Your task to perform on an android device: Open Youtube and go to the subscriptions tab Image 0: 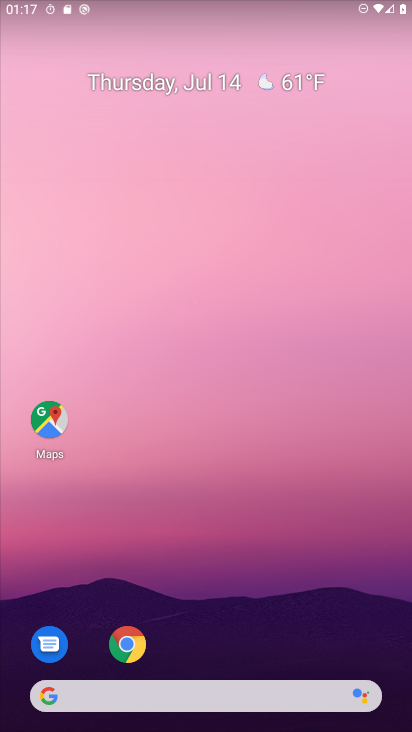
Step 0: drag from (327, 633) to (284, 198)
Your task to perform on an android device: Open Youtube and go to the subscriptions tab Image 1: 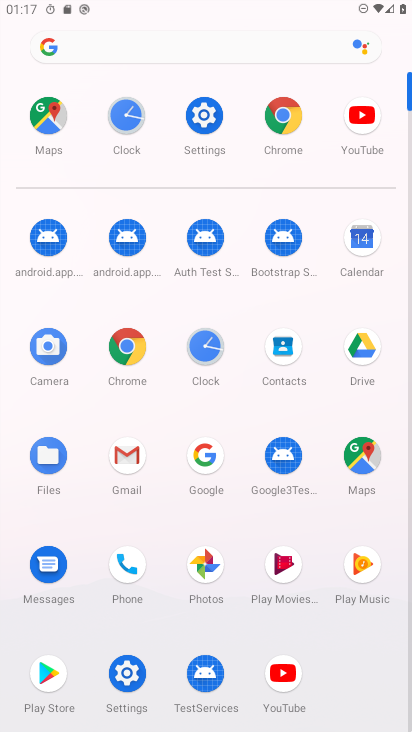
Step 1: click (365, 116)
Your task to perform on an android device: Open Youtube and go to the subscriptions tab Image 2: 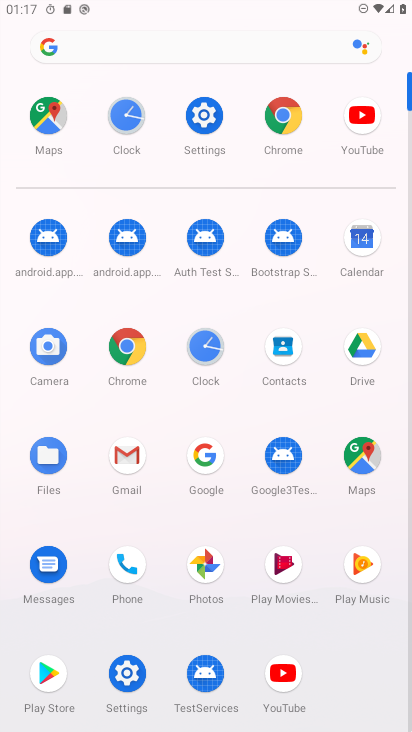
Step 2: click (360, 109)
Your task to perform on an android device: Open Youtube and go to the subscriptions tab Image 3: 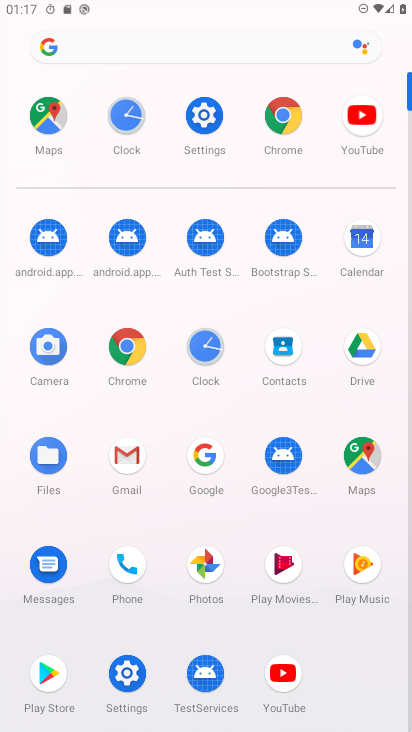
Step 3: click (369, 115)
Your task to perform on an android device: Open Youtube and go to the subscriptions tab Image 4: 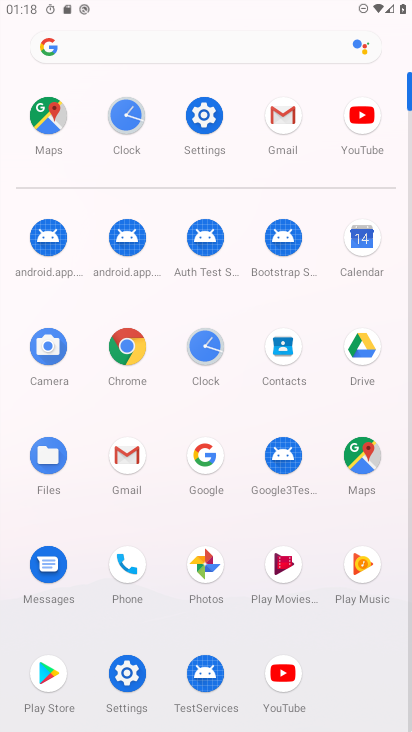
Step 4: click (290, 677)
Your task to perform on an android device: Open Youtube and go to the subscriptions tab Image 5: 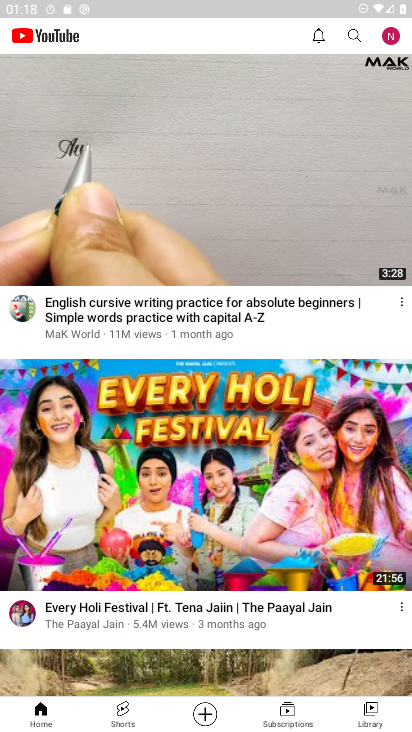
Step 5: click (294, 707)
Your task to perform on an android device: Open Youtube and go to the subscriptions tab Image 6: 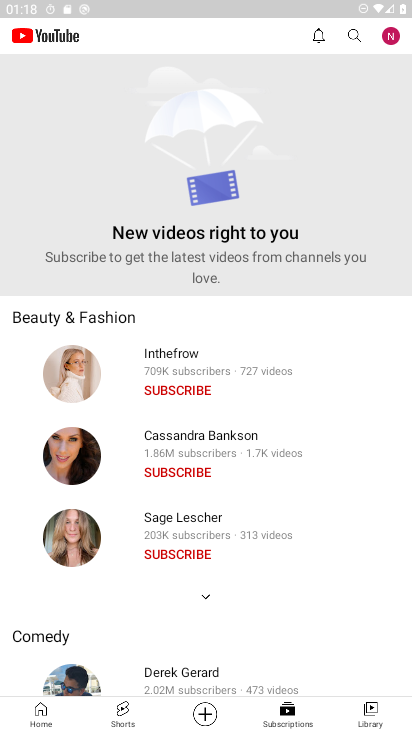
Step 6: task complete